Your task to perform on an android device: visit the assistant section in the google photos Image 0: 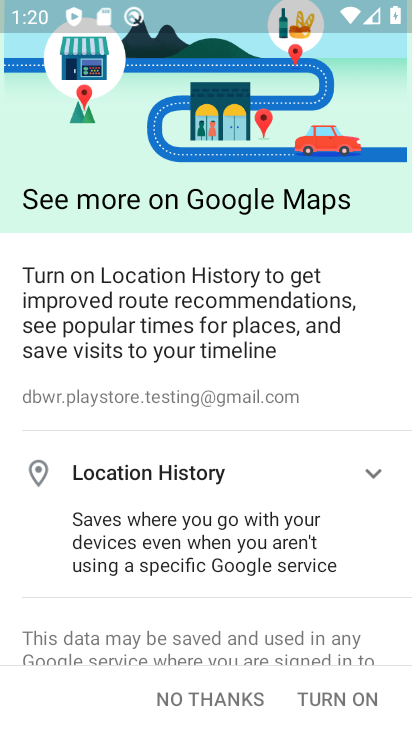
Step 0: press home button
Your task to perform on an android device: visit the assistant section in the google photos Image 1: 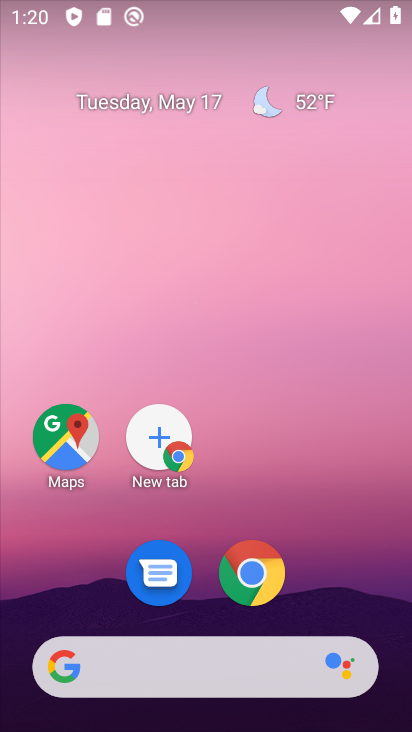
Step 1: drag from (321, 534) to (361, 88)
Your task to perform on an android device: visit the assistant section in the google photos Image 2: 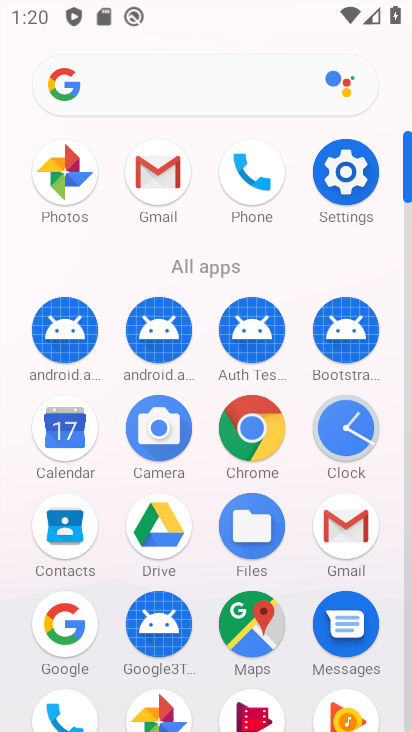
Step 2: click (81, 194)
Your task to perform on an android device: visit the assistant section in the google photos Image 3: 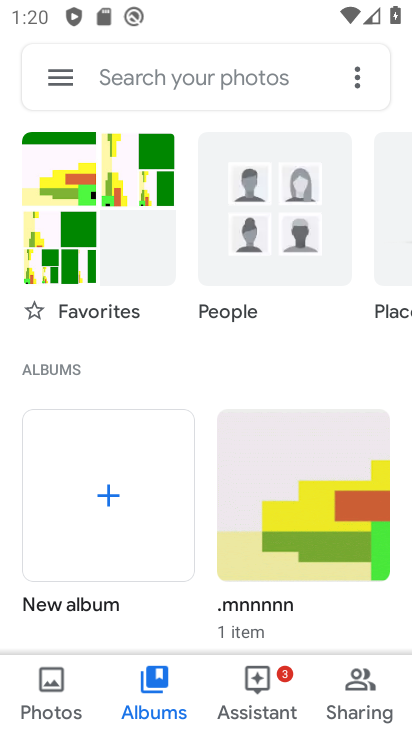
Step 3: click (269, 688)
Your task to perform on an android device: visit the assistant section in the google photos Image 4: 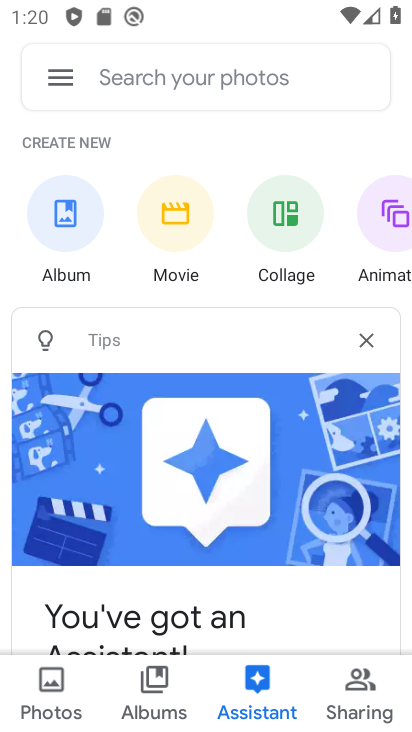
Step 4: task complete